Your task to perform on an android device: install app "Paramount+ | Peak Streaming" Image 0: 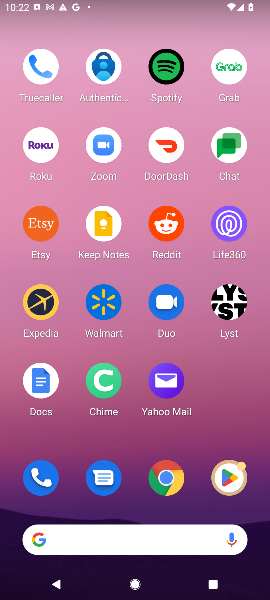
Step 0: click (230, 477)
Your task to perform on an android device: install app "Paramount+ | Peak Streaming" Image 1: 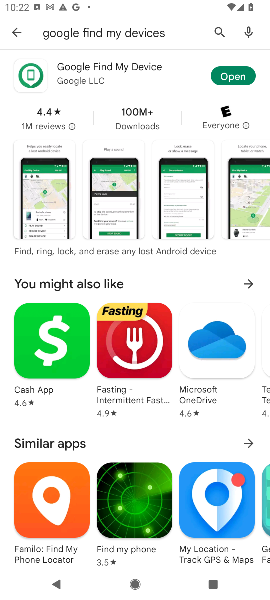
Step 1: click (217, 32)
Your task to perform on an android device: install app "Paramount+ | Peak Streaming" Image 2: 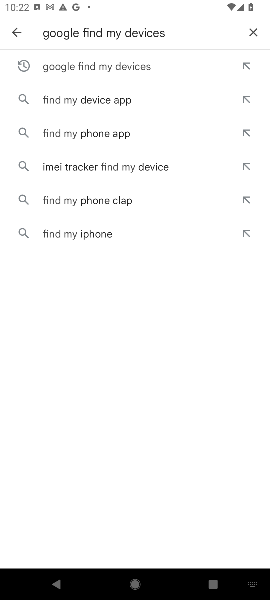
Step 2: click (248, 32)
Your task to perform on an android device: install app "Paramount+ | Peak Streaming" Image 3: 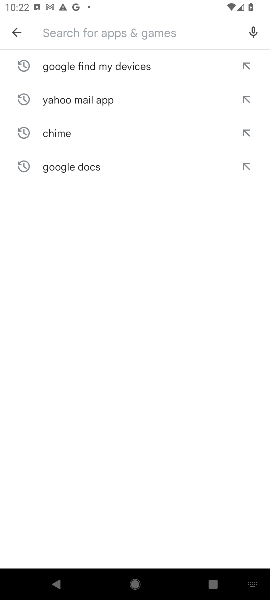
Step 3: type "paramount"
Your task to perform on an android device: install app "Paramount+ | Peak Streaming" Image 4: 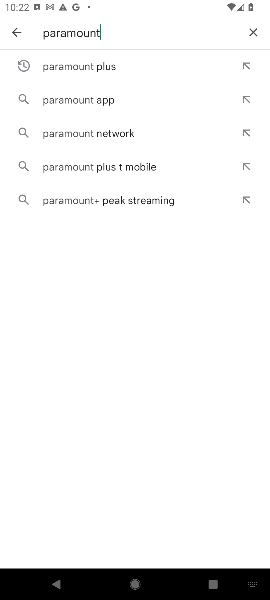
Step 4: click (83, 66)
Your task to perform on an android device: install app "Paramount+ | Peak Streaming" Image 5: 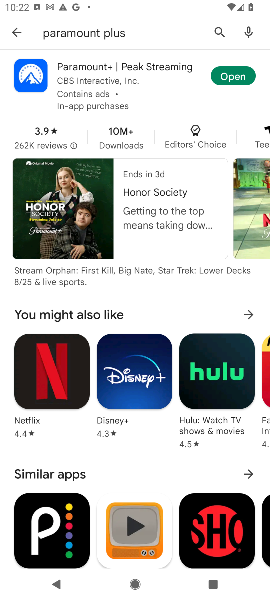
Step 5: click (229, 74)
Your task to perform on an android device: install app "Paramount+ | Peak Streaming" Image 6: 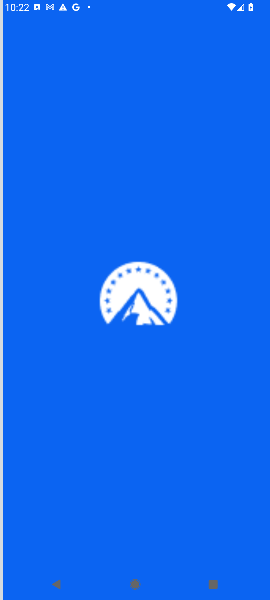
Step 6: task complete